Your task to perform on an android device: make emails show in primary in the gmail app Image 0: 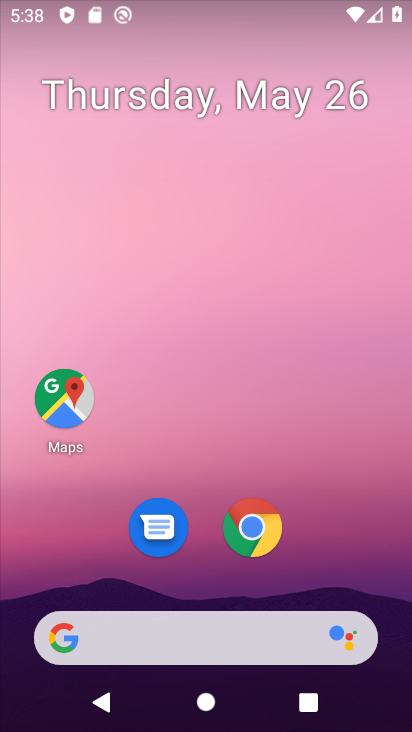
Step 0: drag from (197, 615) to (191, 118)
Your task to perform on an android device: make emails show in primary in the gmail app Image 1: 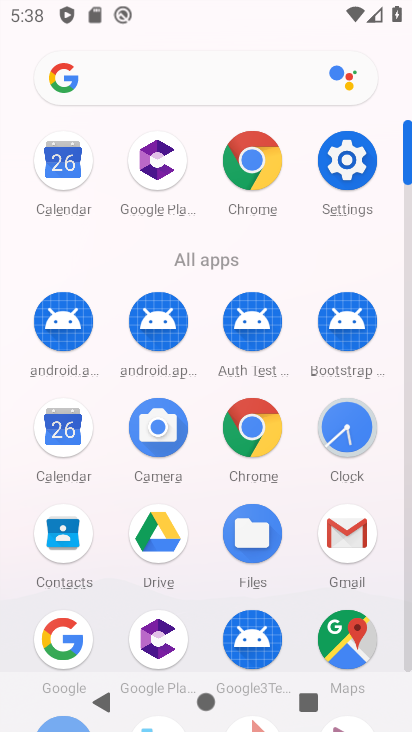
Step 1: click (341, 534)
Your task to perform on an android device: make emails show in primary in the gmail app Image 2: 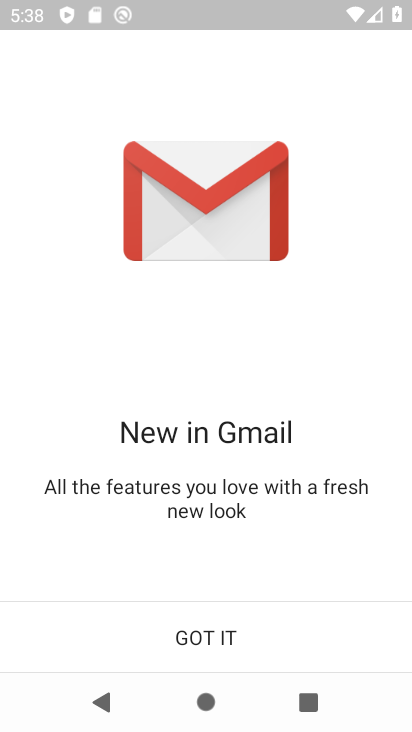
Step 2: click (207, 642)
Your task to perform on an android device: make emails show in primary in the gmail app Image 3: 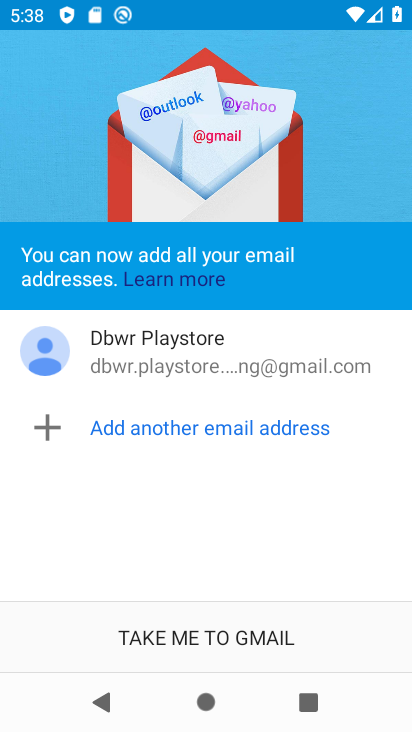
Step 3: click (172, 631)
Your task to perform on an android device: make emails show in primary in the gmail app Image 4: 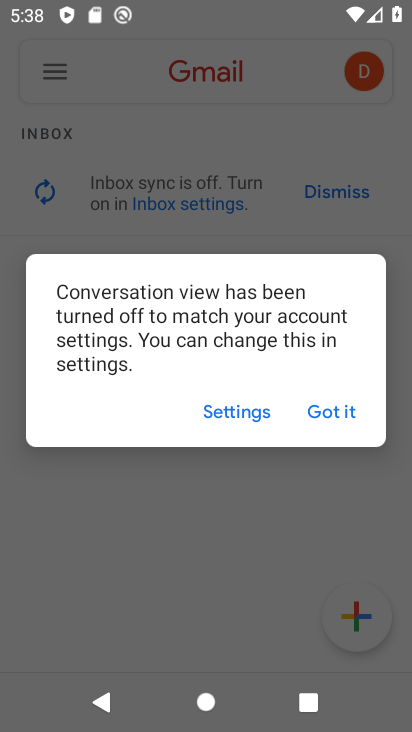
Step 4: click (345, 420)
Your task to perform on an android device: make emails show in primary in the gmail app Image 5: 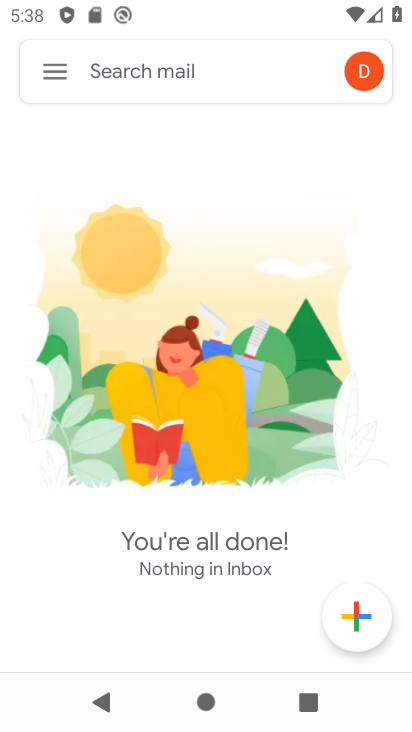
Step 5: click (47, 66)
Your task to perform on an android device: make emails show in primary in the gmail app Image 6: 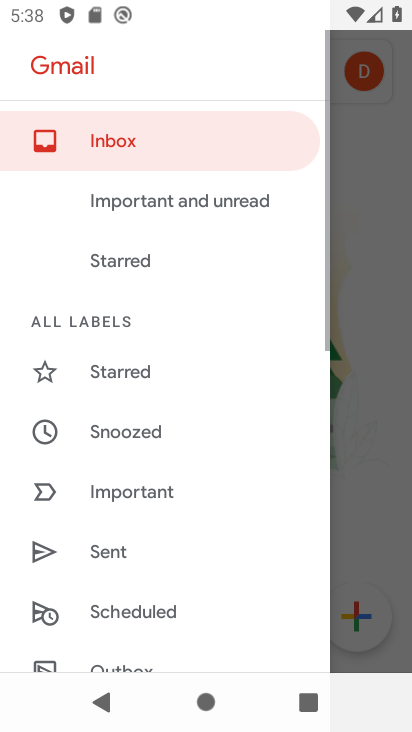
Step 6: drag from (130, 663) to (197, 141)
Your task to perform on an android device: make emails show in primary in the gmail app Image 7: 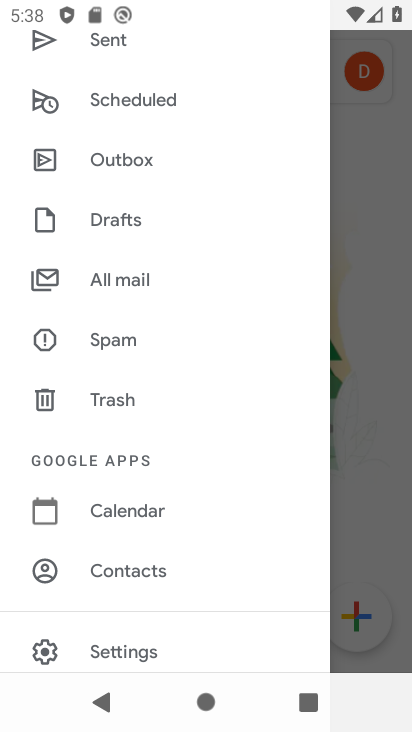
Step 7: click (142, 639)
Your task to perform on an android device: make emails show in primary in the gmail app Image 8: 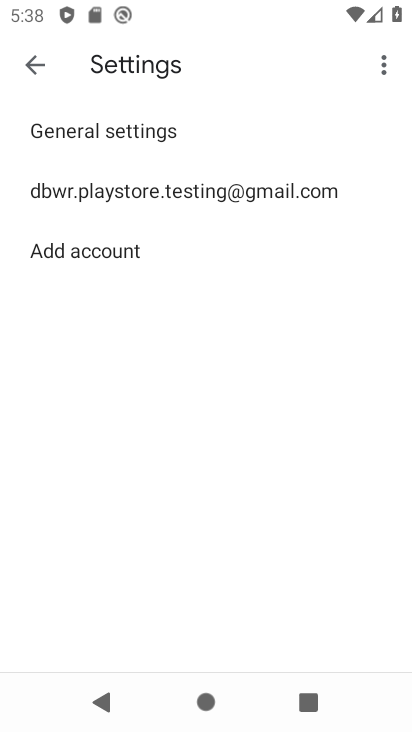
Step 8: click (171, 188)
Your task to perform on an android device: make emails show in primary in the gmail app Image 9: 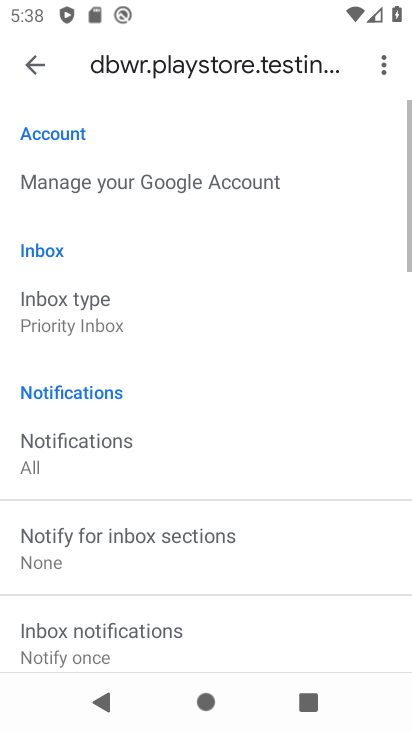
Step 9: click (80, 323)
Your task to perform on an android device: make emails show in primary in the gmail app Image 10: 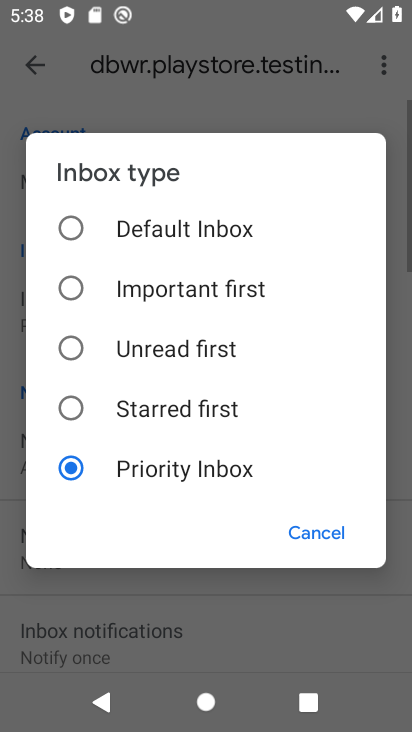
Step 10: click (131, 229)
Your task to perform on an android device: make emails show in primary in the gmail app Image 11: 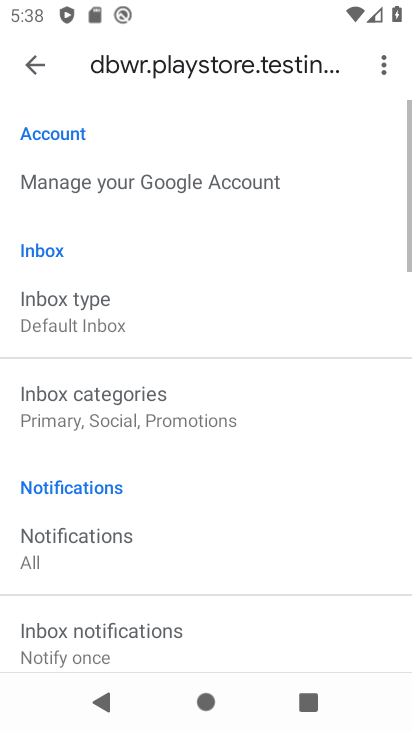
Step 11: click (77, 414)
Your task to perform on an android device: make emails show in primary in the gmail app Image 12: 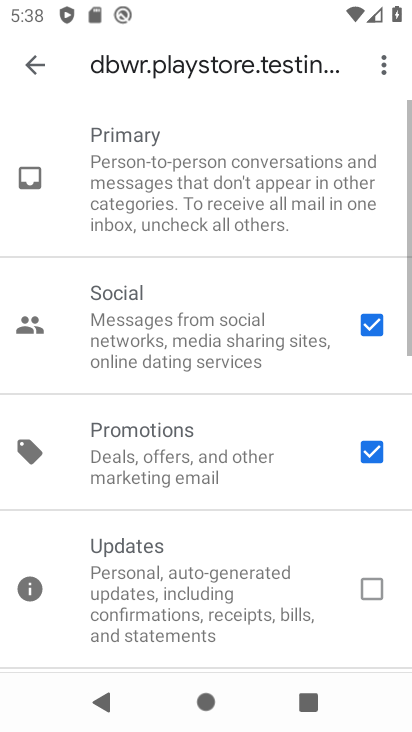
Step 12: click (371, 462)
Your task to perform on an android device: make emails show in primary in the gmail app Image 13: 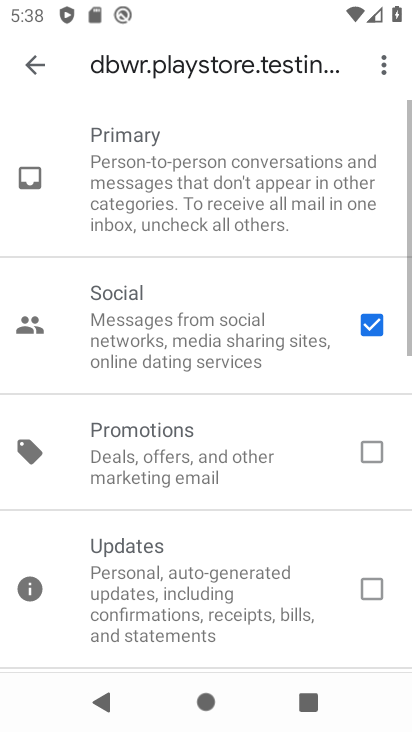
Step 13: click (365, 326)
Your task to perform on an android device: make emails show in primary in the gmail app Image 14: 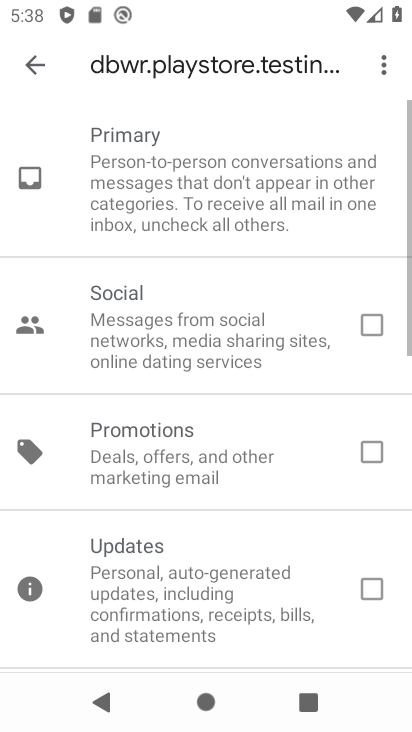
Step 14: click (37, 65)
Your task to perform on an android device: make emails show in primary in the gmail app Image 15: 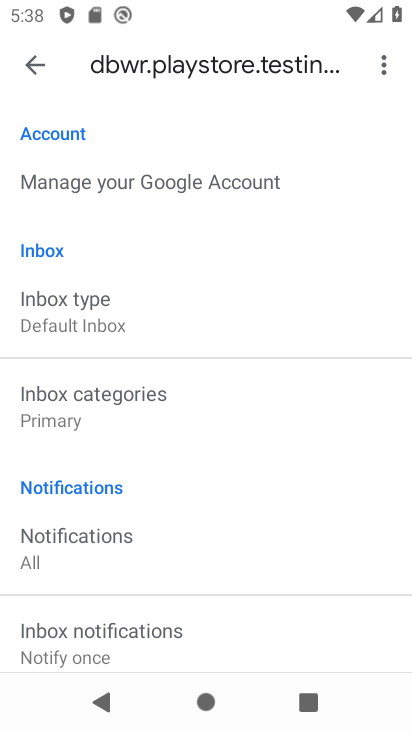
Step 15: task complete